Your task to perform on an android device: check the backup settings in the google photos Image 0: 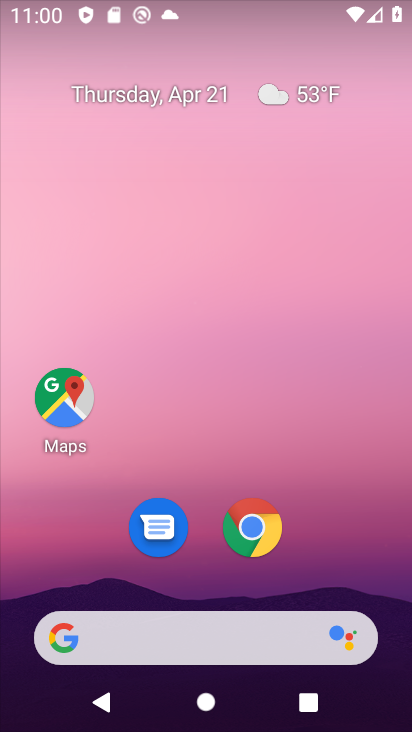
Step 0: drag from (366, 565) to (359, 61)
Your task to perform on an android device: check the backup settings in the google photos Image 1: 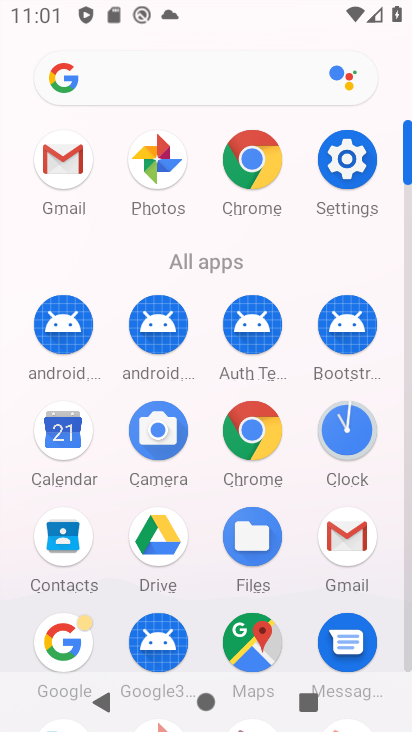
Step 1: click (165, 158)
Your task to perform on an android device: check the backup settings in the google photos Image 2: 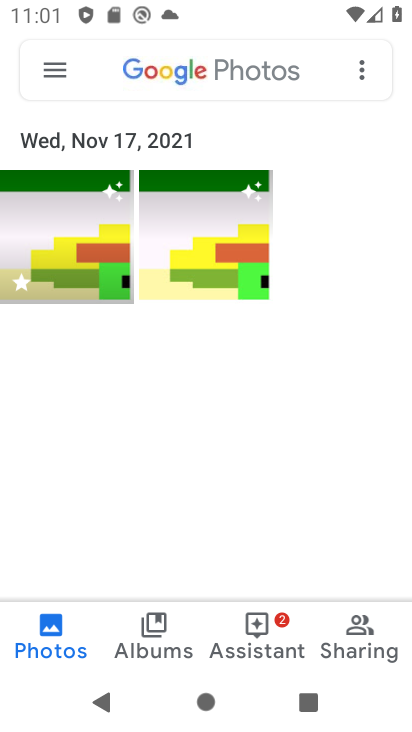
Step 2: click (59, 65)
Your task to perform on an android device: check the backup settings in the google photos Image 3: 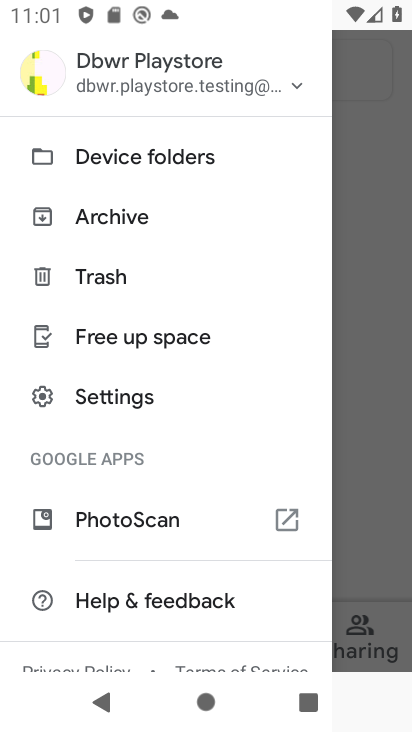
Step 3: click (145, 403)
Your task to perform on an android device: check the backup settings in the google photos Image 4: 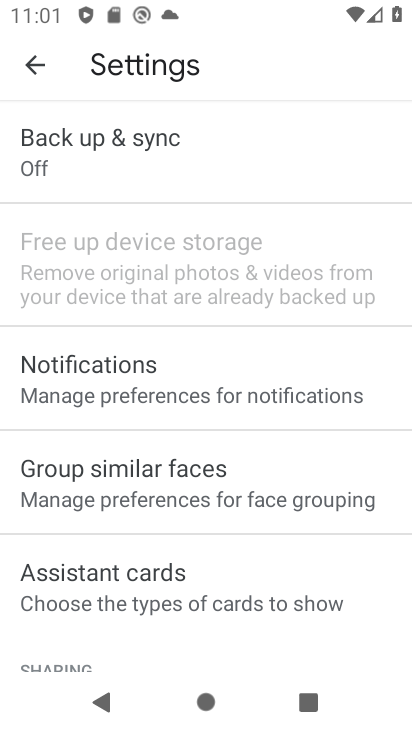
Step 4: click (196, 160)
Your task to perform on an android device: check the backup settings in the google photos Image 5: 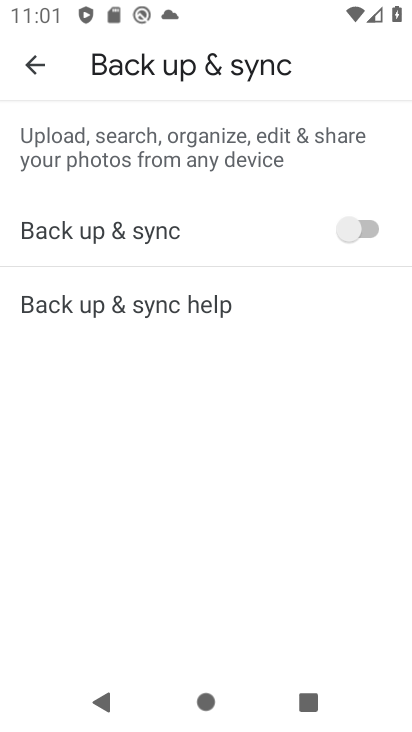
Step 5: task complete